Your task to perform on an android device: stop showing notifications on the lock screen Image 0: 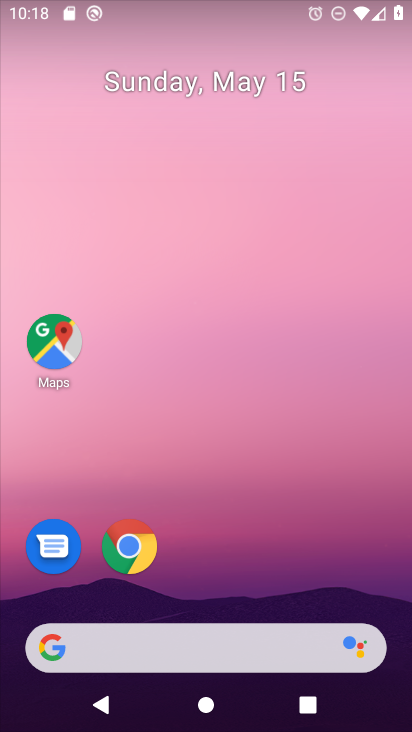
Step 0: drag from (293, 543) to (321, 101)
Your task to perform on an android device: stop showing notifications on the lock screen Image 1: 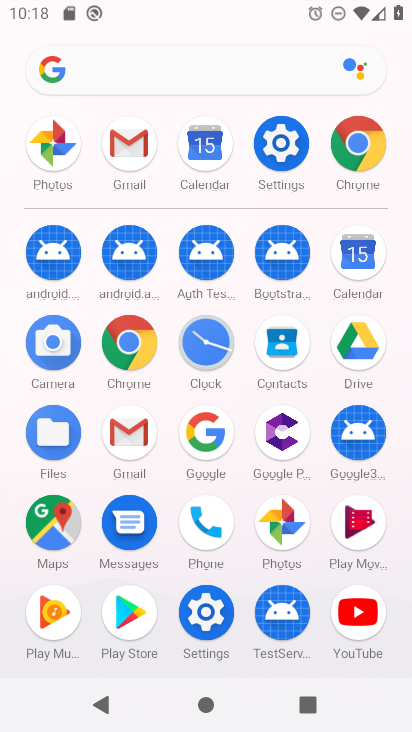
Step 1: click (288, 153)
Your task to perform on an android device: stop showing notifications on the lock screen Image 2: 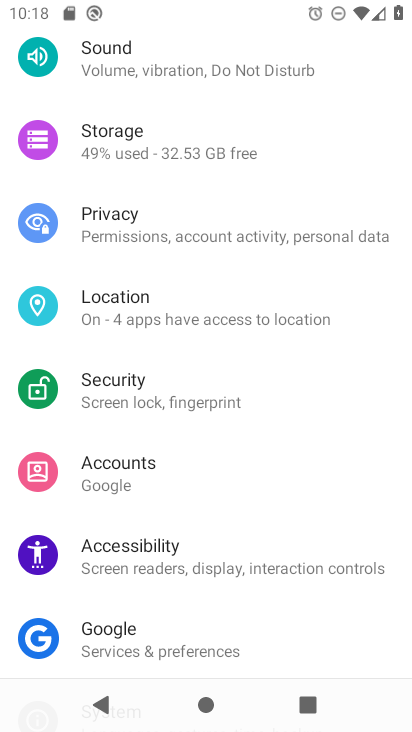
Step 2: drag from (222, 450) to (181, 719)
Your task to perform on an android device: stop showing notifications on the lock screen Image 3: 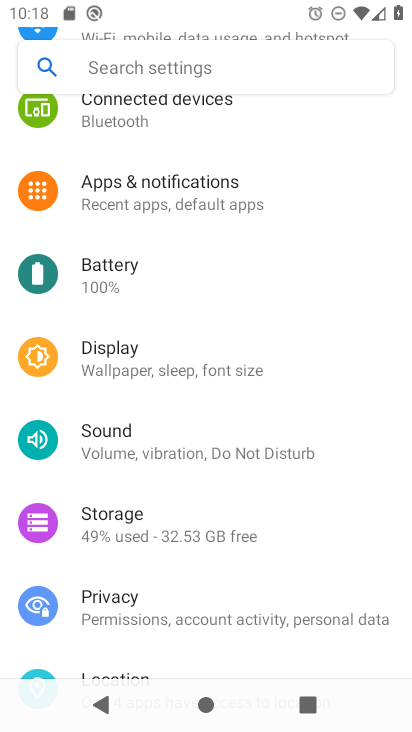
Step 3: click (187, 235)
Your task to perform on an android device: stop showing notifications on the lock screen Image 4: 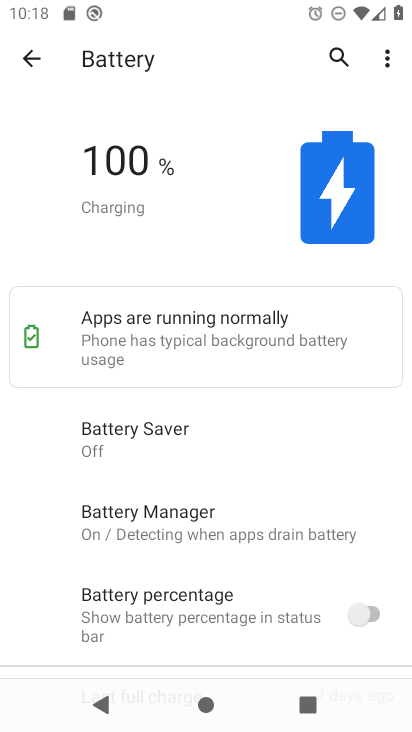
Step 4: click (23, 59)
Your task to perform on an android device: stop showing notifications on the lock screen Image 5: 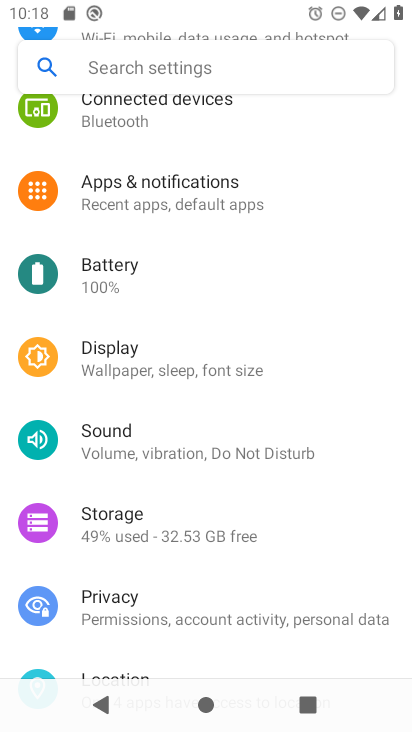
Step 5: click (179, 199)
Your task to perform on an android device: stop showing notifications on the lock screen Image 6: 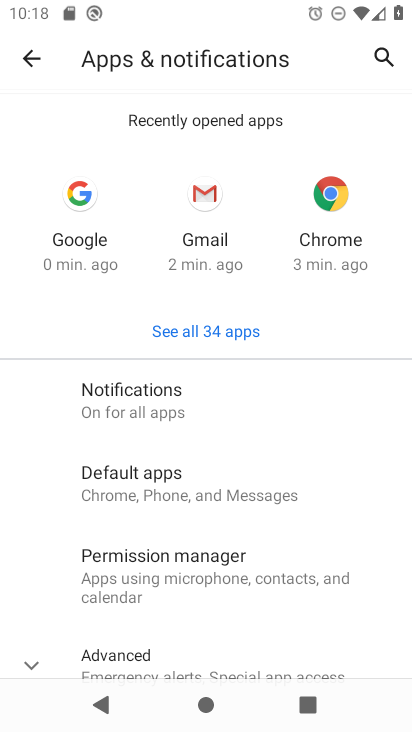
Step 6: drag from (126, 577) to (231, 223)
Your task to perform on an android device: stop showing notifications on the lock screen Image 7: 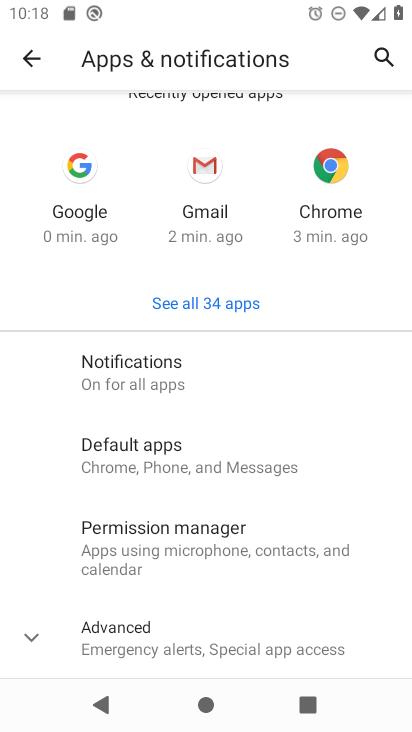
Step 7: click (94, 622)
Your task to perform on an android device: stop showing notifications on the lock screen Image 8: 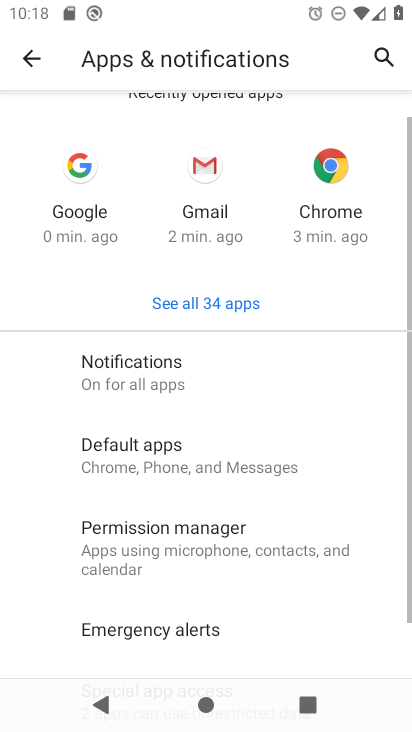
Step 8: drag from (189, 610) to (289, 167)
Your task to perform on an android device: stop showing notifications on the lock screen Image 9: 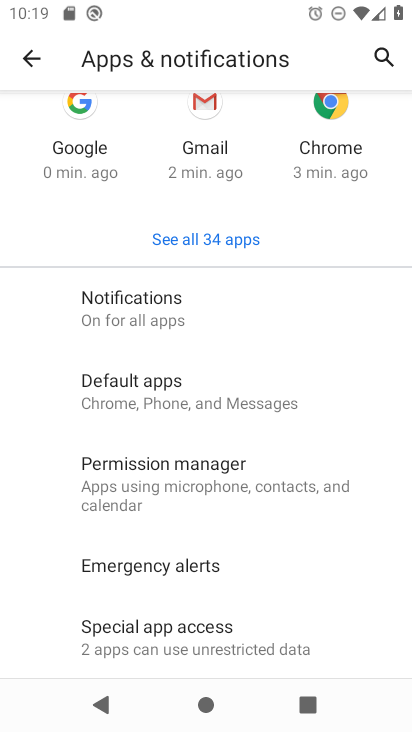
Step 9: drag from (234, 240) to (191, 397)
Your task to perform on an android device: stop showing notifications on the lock screen Image 10: 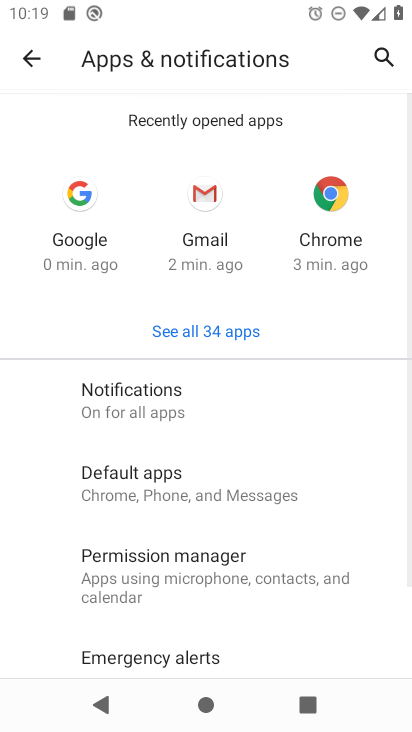
Step 10: click (156, 398)
Your task to perform on an android device: stop showing notifications on the lock screen Image 11: 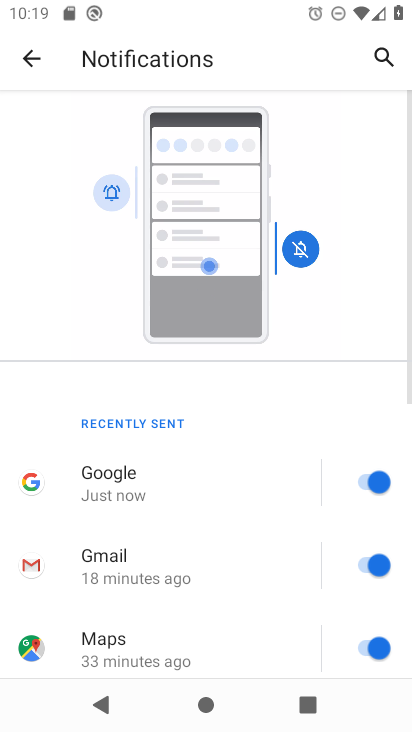
Step 11: drag from (141, 539) to (243, 215)
Your task to perform on an android device: stop showing notifications on the lock screen Image 12: 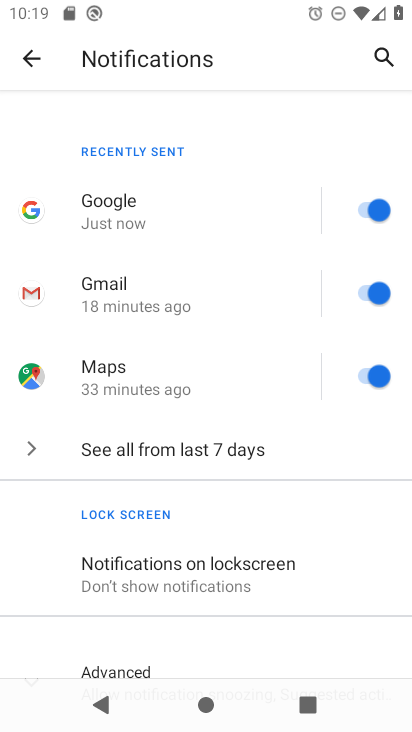
Step 12: click (70, 574)
Your task to perform on an android device: stop showing notifications on the lock screen Image 13: 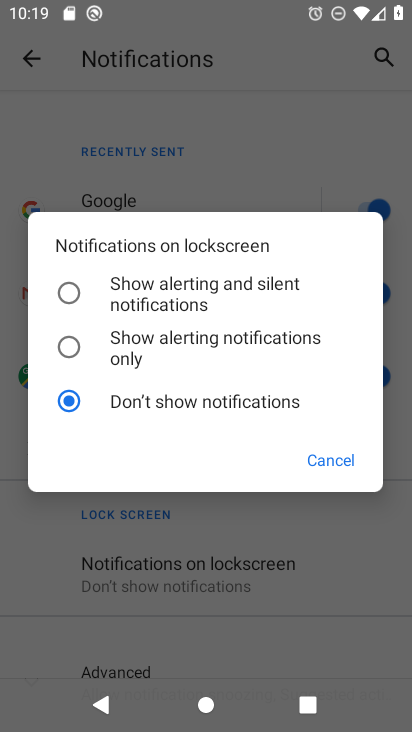
Step 13: click (182, 280)
Your task to perform on an android device: stop showing notifications on the lock screen Image 14: 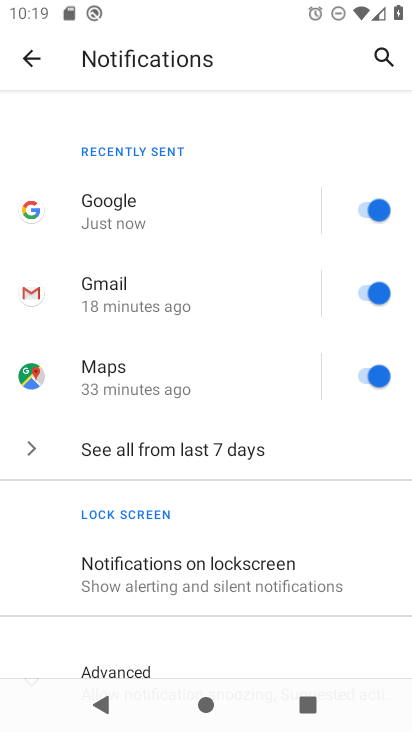
Step 14: click (220, 549)
Your task to perform on an android device: stop showing notifications on the lock screen Image 15: 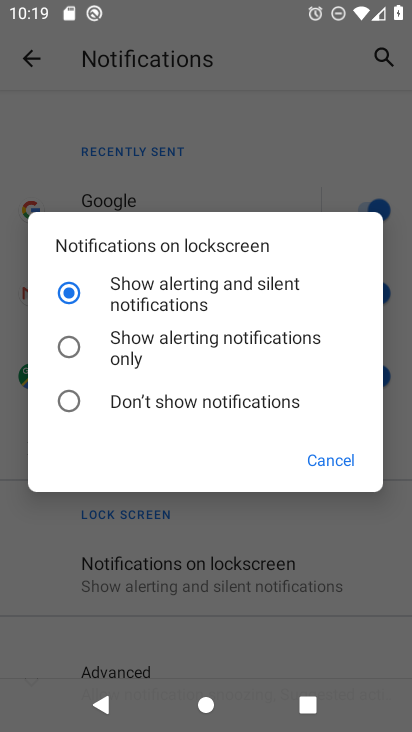
Step 15: click (241, 398)
Your task to perform on an android device: stop showing notifications on the lock screen Image 16: 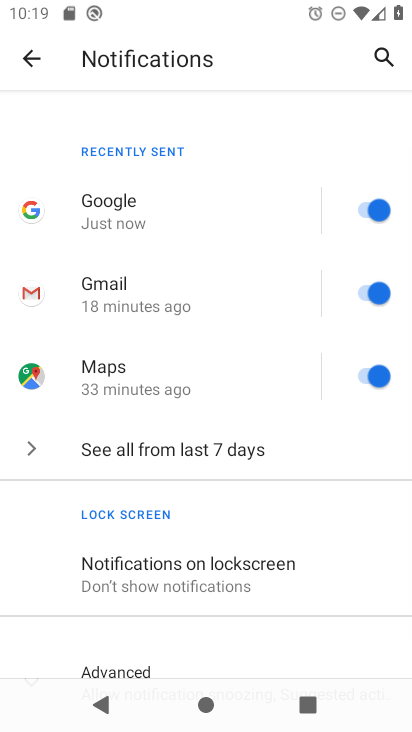
Step 16: task complete